Your task to perform on an android device: Go to location settings Image 0: 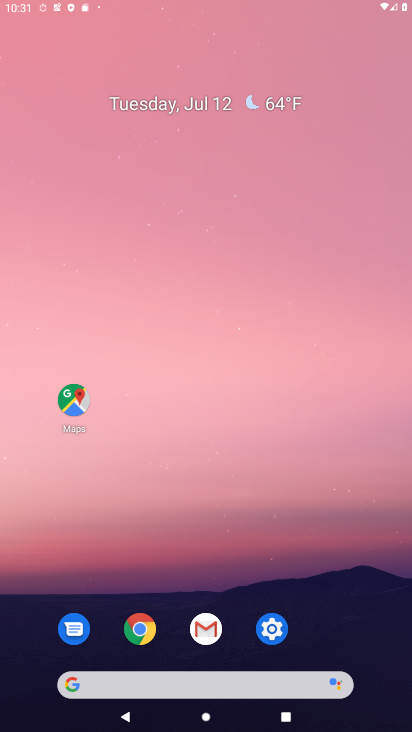
Step 0: press home button
Your task to perform on an android device: Go to location settings Image 1: 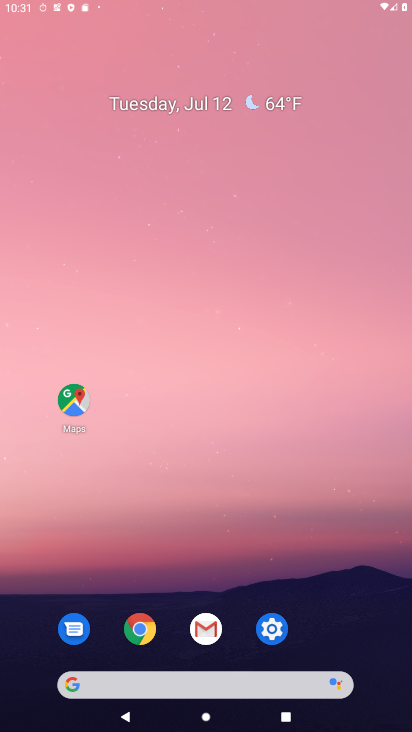
Step 1: click (201, 630)
Your task to perform on an android device: Go to location settings Image 2: 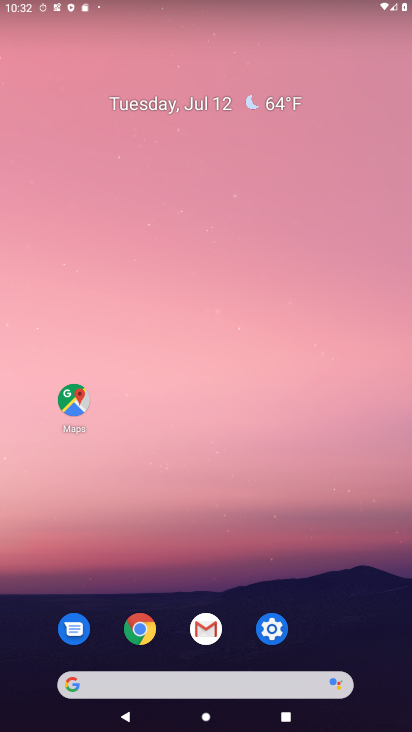
Step 2: click (274, 636)
Your task to perform on an android device: Go to location settings Image 3: 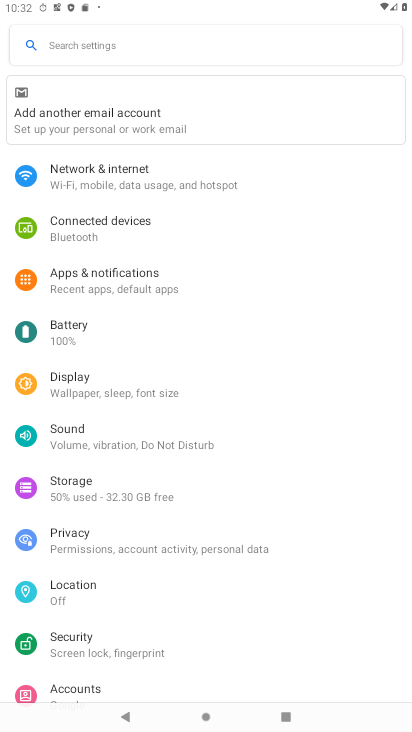
Step 3: click (80, 595)
Your task to perform on an android device: Go to location settings Image 4: 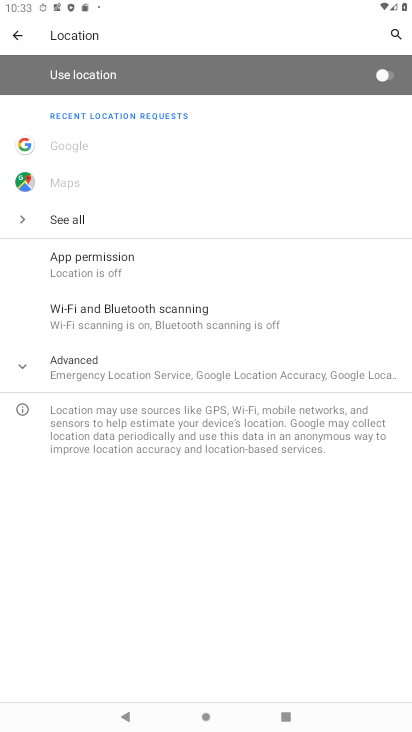
Step 4: task complete